Your task to perform on an android device: add a contact in the contacts app Image 0: 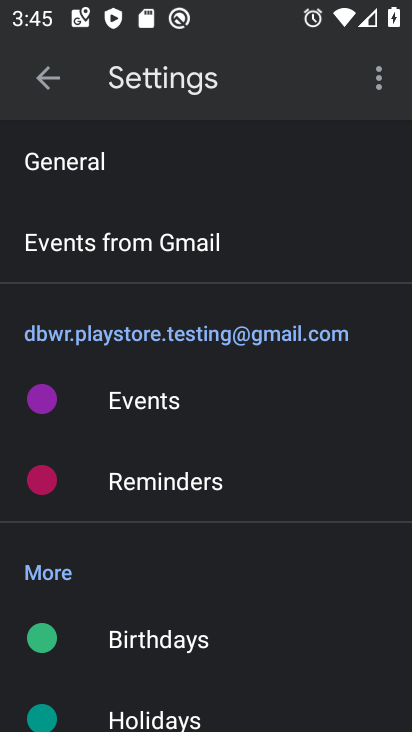
Step 0: press home button
Your task to perform on an android device: add a contact in the contacts app Image 1: 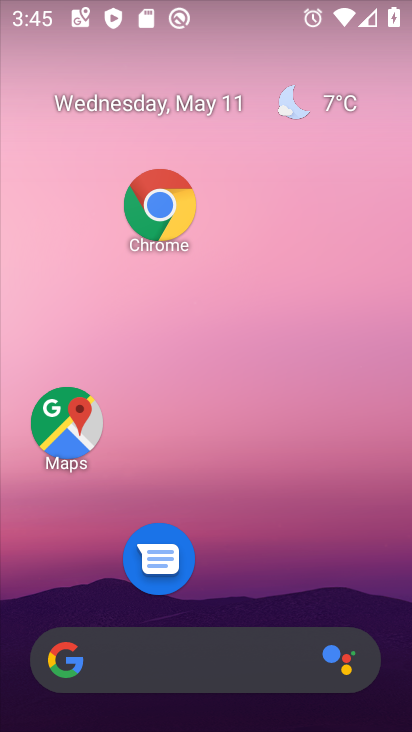
Step 1: drag from (196, 639) to (195, 204)
Your task to perform on an android device: add a contact in the contacts app Image 2: 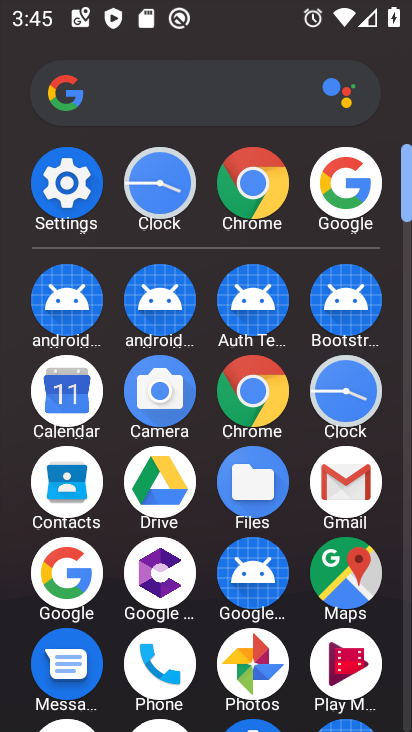
Step 2: click (70, 502)
Your task to perform on an android device: add a contact in the contacts app Image 3: 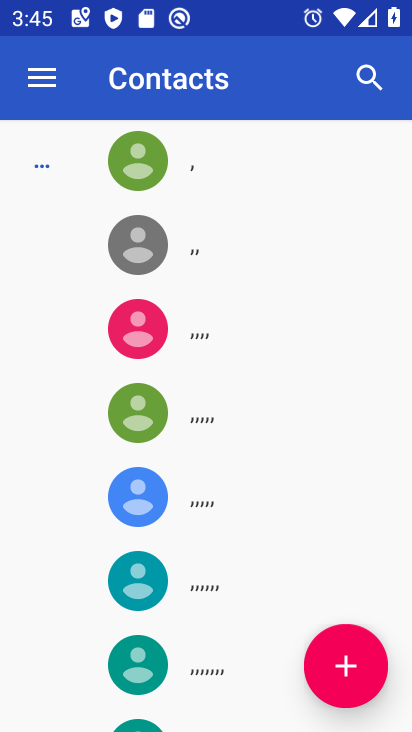
Step 3: click (326, 661)
Your task to perform on an android device: add a contact in the contacts app Image 4: 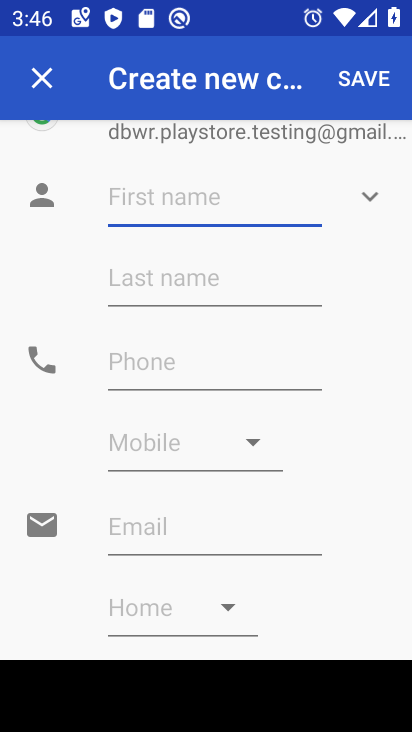
Step 4: type "puchi"
Your task to perform on an android device: add a contact in the contacts app Image 5: 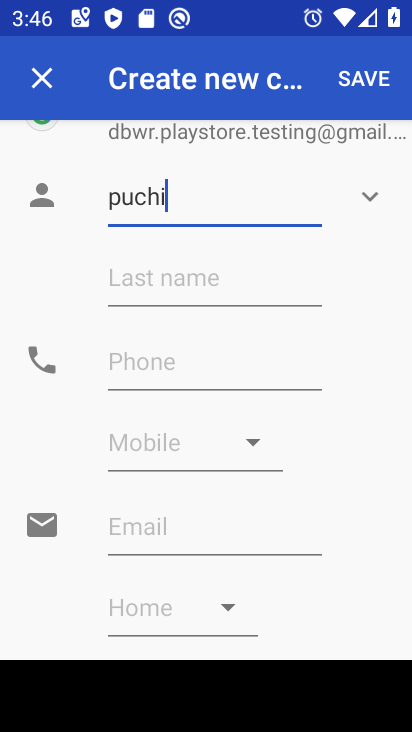
Step 5: click (198, 301)
Your task to perform on an android device: add a contact in the contacts app Image 6: 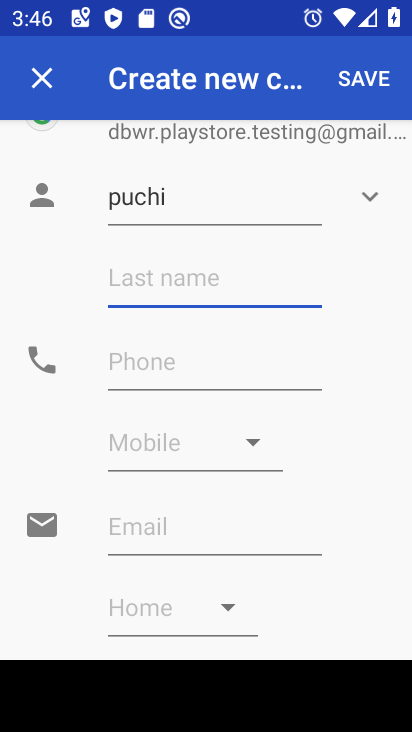
Step 6: type "laika"
Your task to perform on an android device: add a contact in the contacts app Image 7: 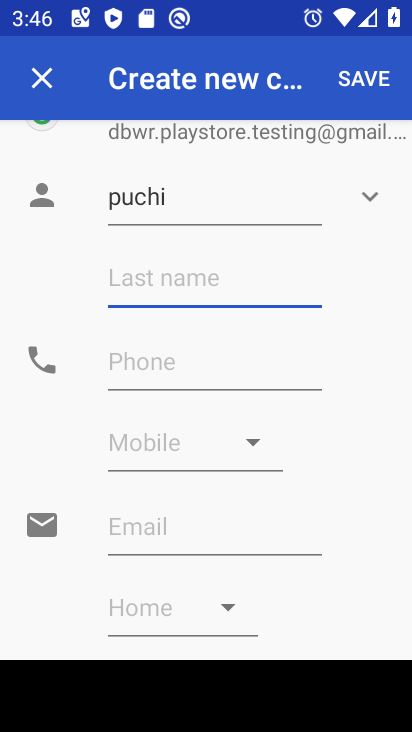
Step 7: click (184, 383)
Your task to perform on an android device: add a contact in the contacts app Image 8: 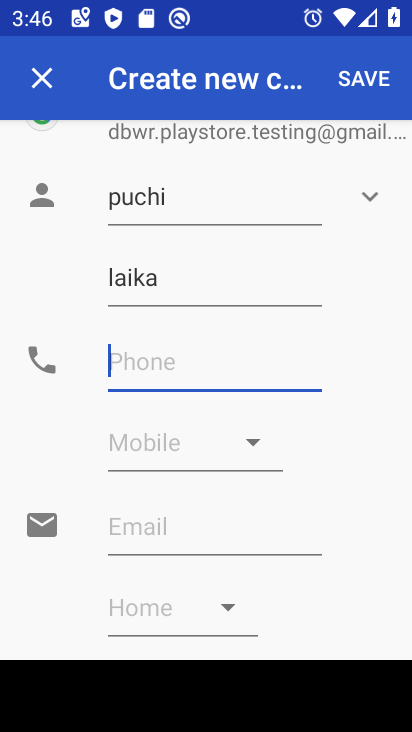
Step 8: type "7878787879"
Your task to perform on an android device: add a contact in the contacts app Image 9: 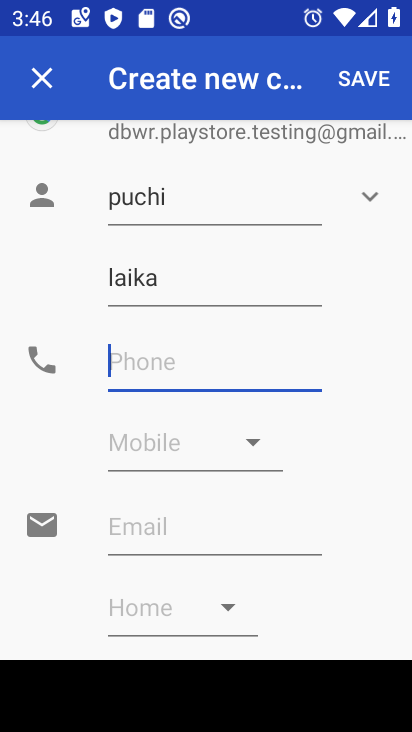
Step 9: click (254, 437)
Your task to perform on an android device: add a contact in the contacts app Image 10: 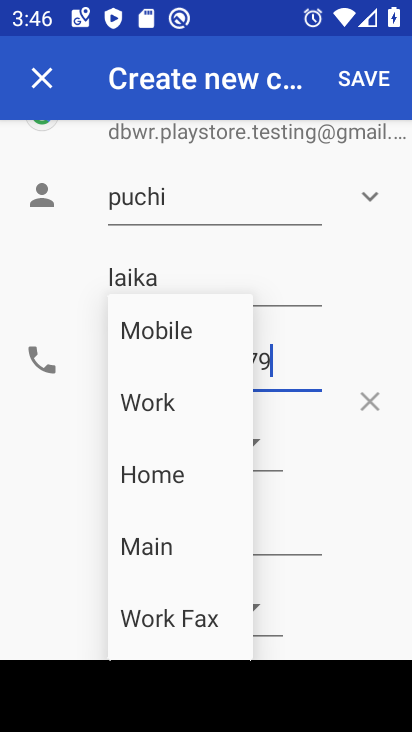
Step 10: click (158, 333)
Your task to perform on an android device: add a contact in the contacts app Image 11: 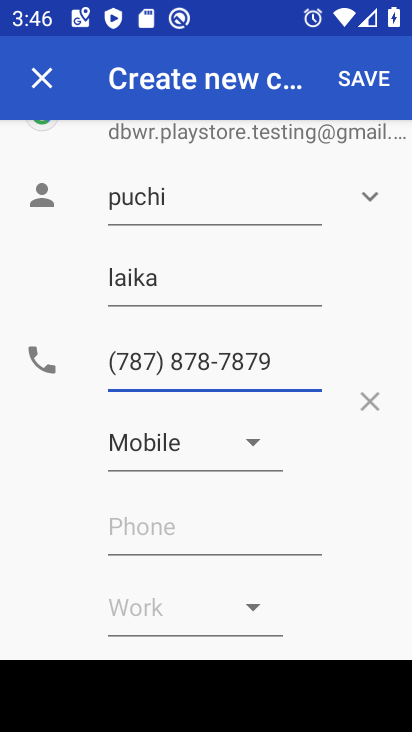
Step 11: click (365, 94)
Your task to perform on an android device: add a contact in the contacts app Image 12: 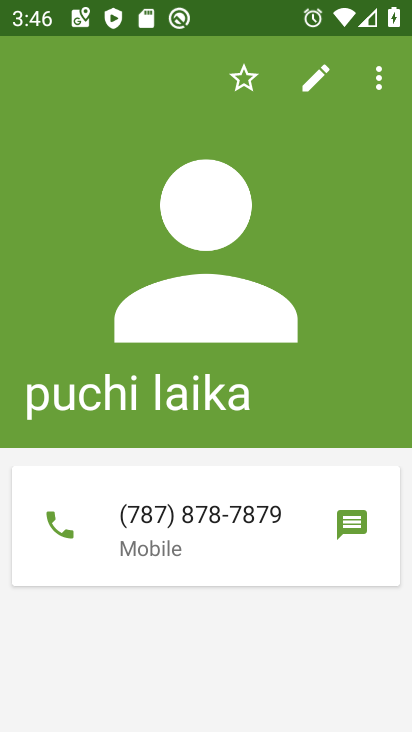
Step 12: task complete